Your task to perform on an android device: open app "Google Play Music" (install if not already installed) Image 0: 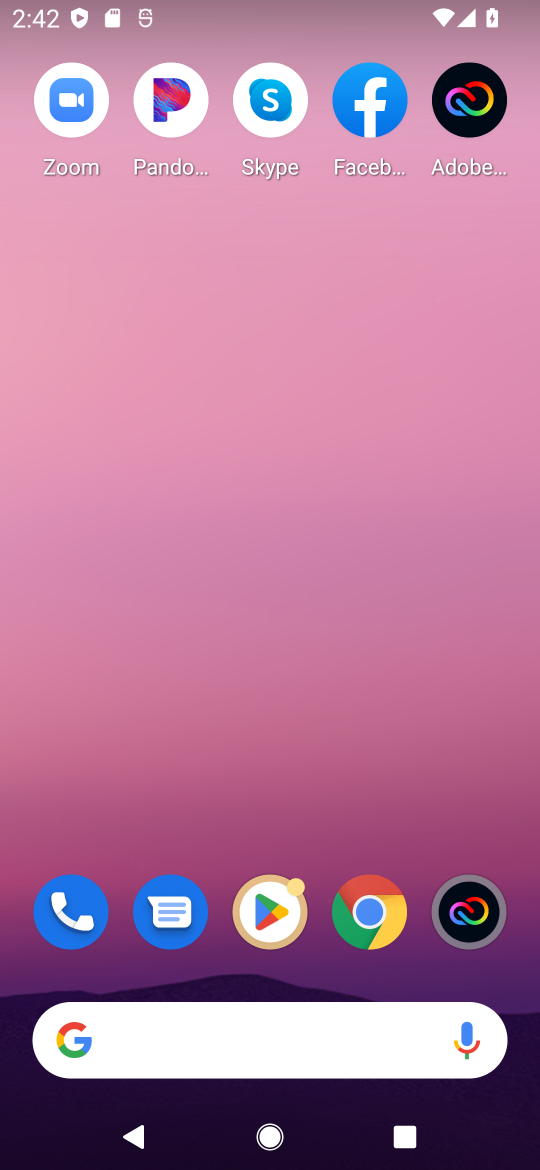
Step 0: drag from (207, 1043) to (205, 167)
Your task to perform on an android device: open app "Google Play Music" (install if not already installed) Image 1: 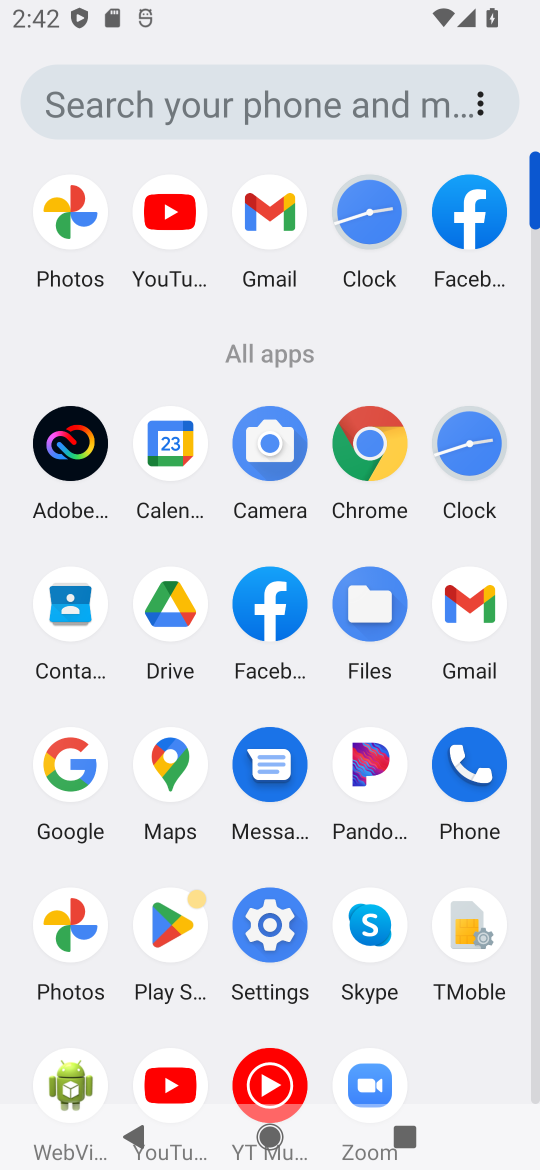
Step 1: click (172, 924)
Your task to perform on an android device: open app "Google Play Music" (install if not already installed) Image 2: 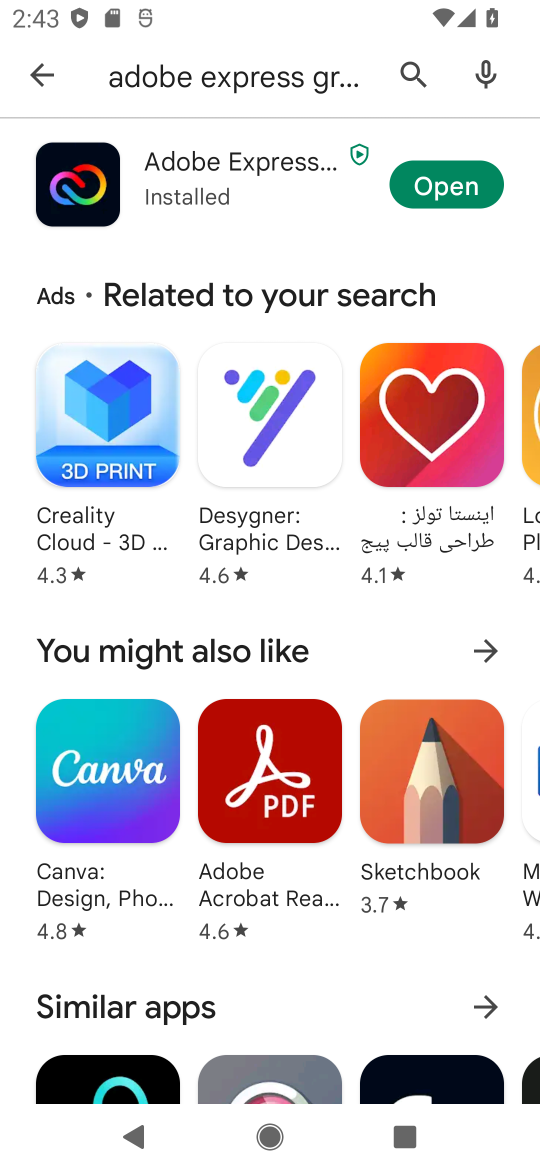
Step 2: press back button
Your task to perform on an android device: open app "Google Play Music" (install if not already installed) Image 3: 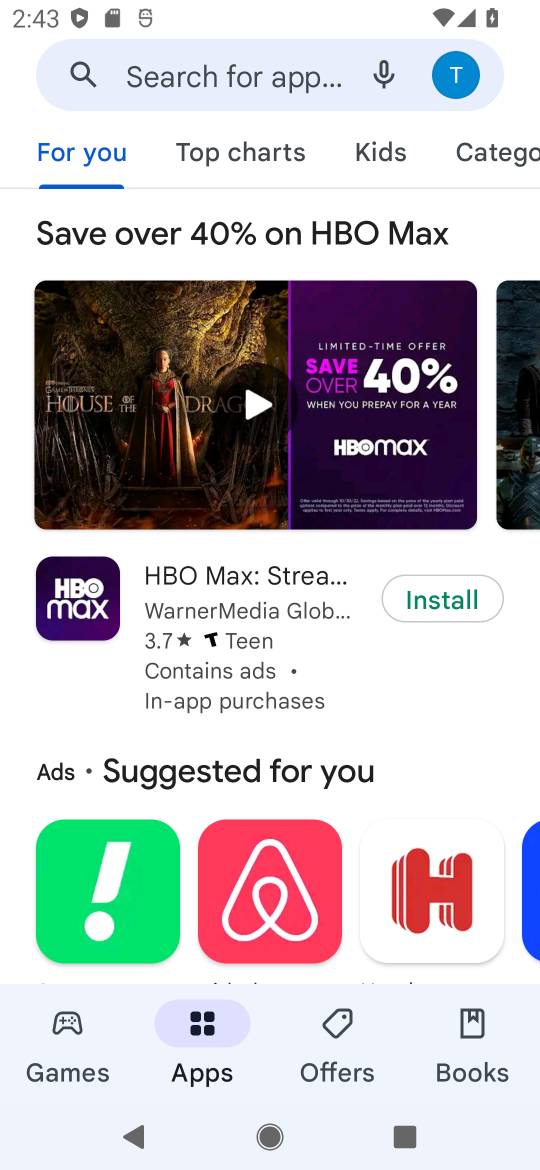
Step 3: click (241, 75)
Your task to perform on an android device: open app "Google Play Music" (install if not already installed) Image 4: 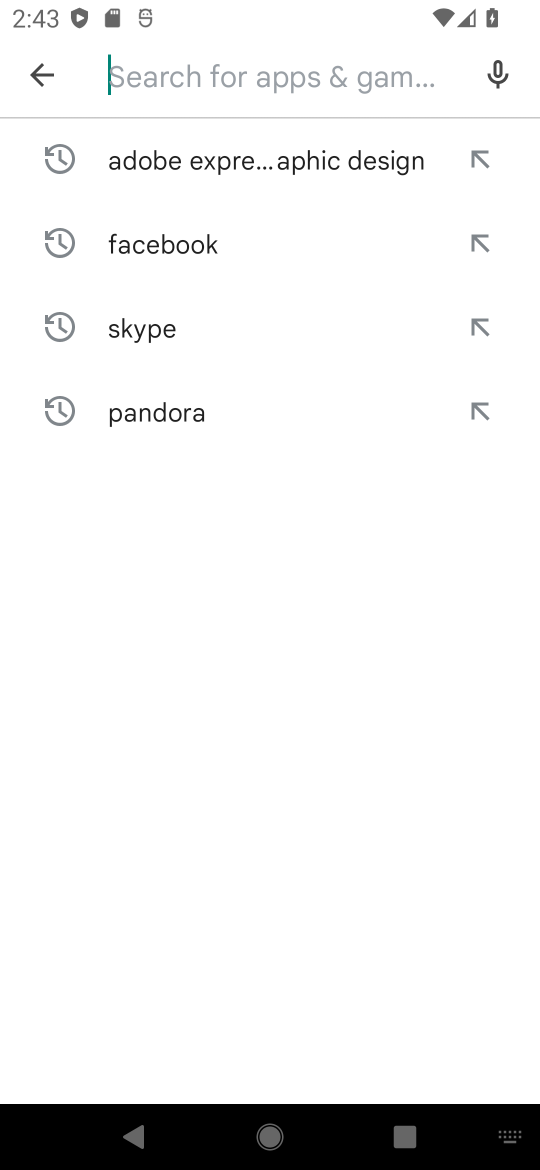
Step 4: type "Google Play Music"
Your task to perform on an android device: open app "Google Play Music" (install if not already installed) Image 5: 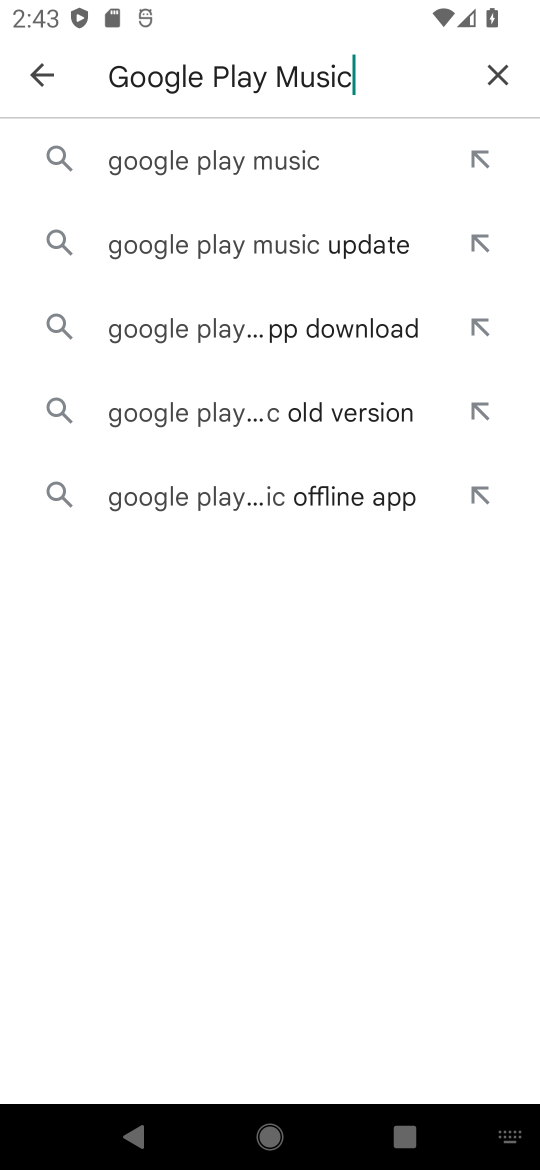
Step 5: click (231, 158)
Your task to perform on an android device: open app "Google Play Music" (install if not already installed) Image 6: 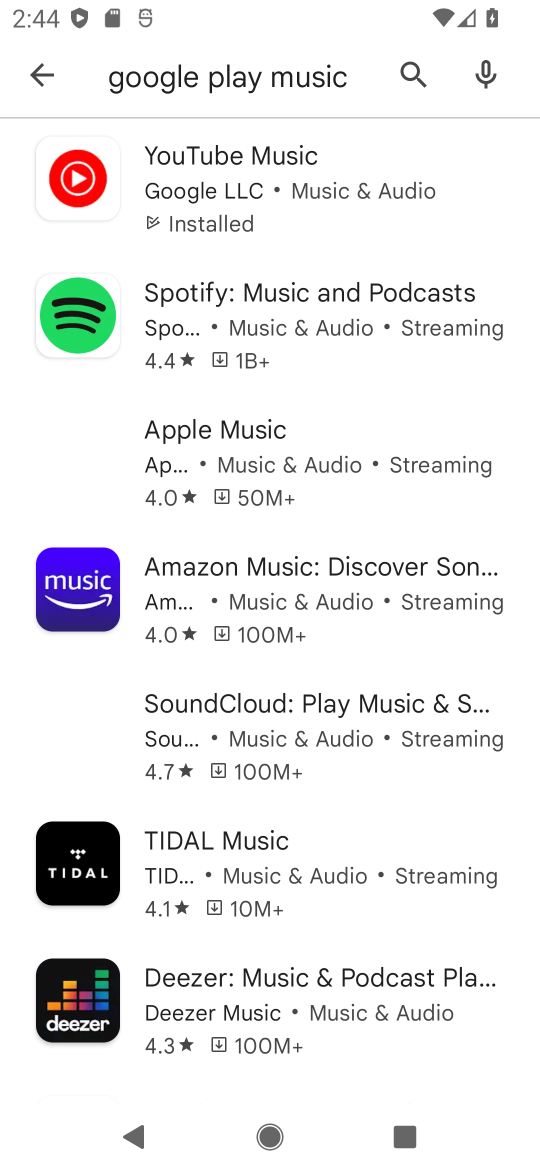
Step 6: click (244, 176)
Your task to perform on an android device: open app "Google Play Music" (install if not already installed) Image 7: 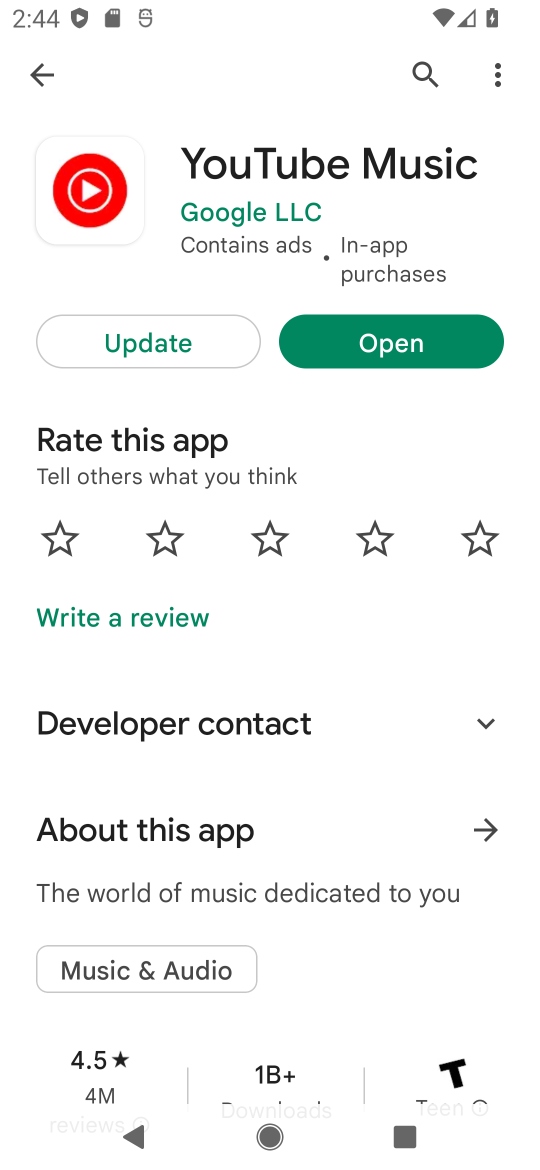
Step 7: click (392, 347)
Your task to perform on an android device: open app "Google Play Music" (install if not already installed) Image 8: 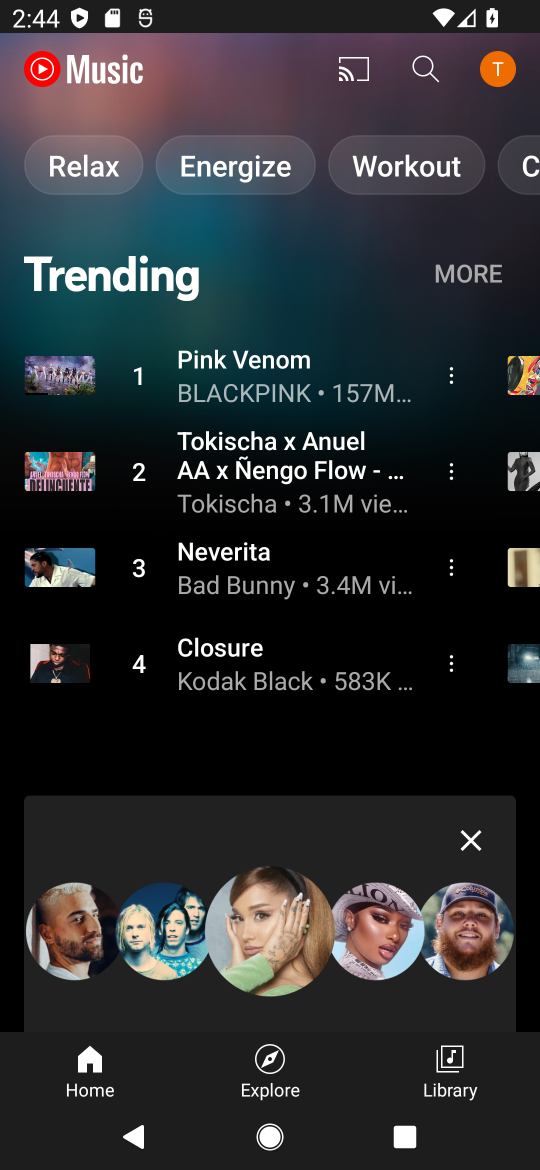
Step 8: task complete